Your task to perform on an android device: Do I have any events today? Image 0: 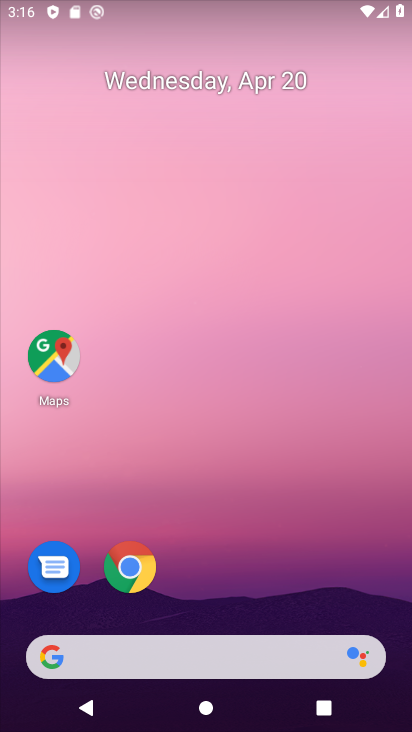
Step 0: click (222, 197)
Your task to perform on an android device: Do I have any events today? Image 1: 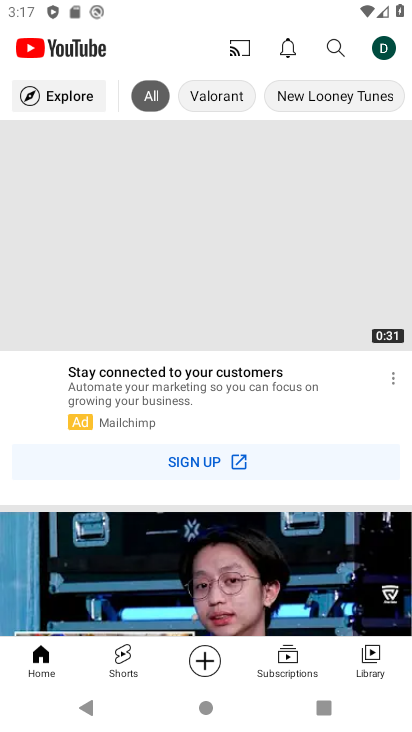
Step 1: press home button
Your task to perform on an android device: Do I have any events today? Image 2: 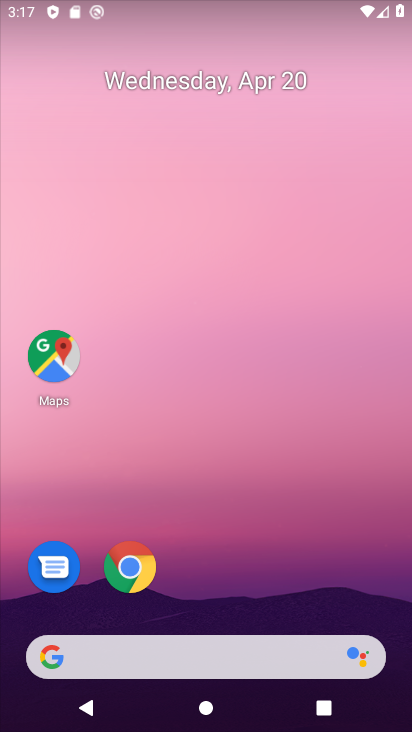
Step 2: drag from (356, 600) to (306, 182)
Your task to perform on an android device: Do I have any events today? Image 3: 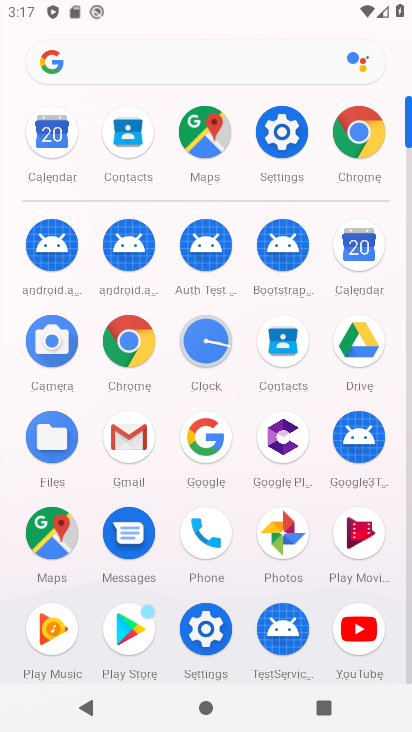
Step 3: click (371, 258)
Your task to perform on an android device: Do I have any events today? Image 4: 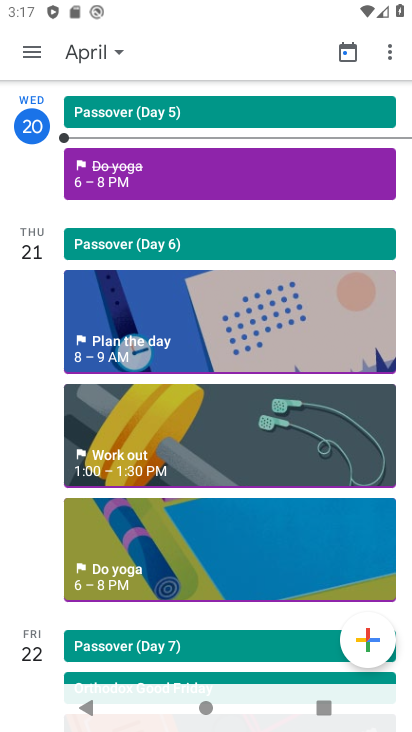
Step 4: click (104, 55)
Your task to perform on an android device: Do I have any events today? Image 5: 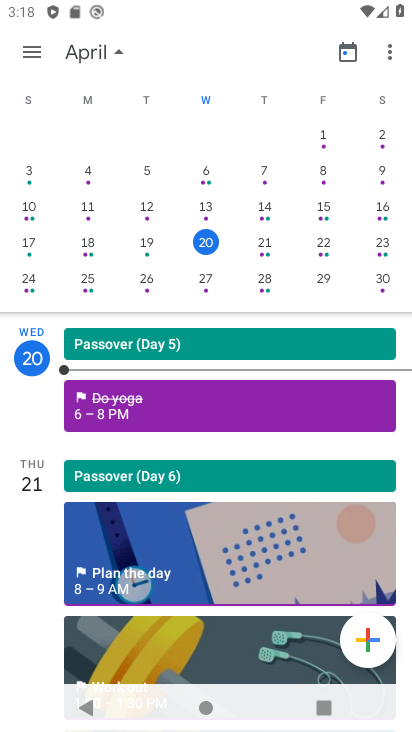
Step 5: click (208, 249)
Your task to perform on an android device: Do I have any events today? Image 6: 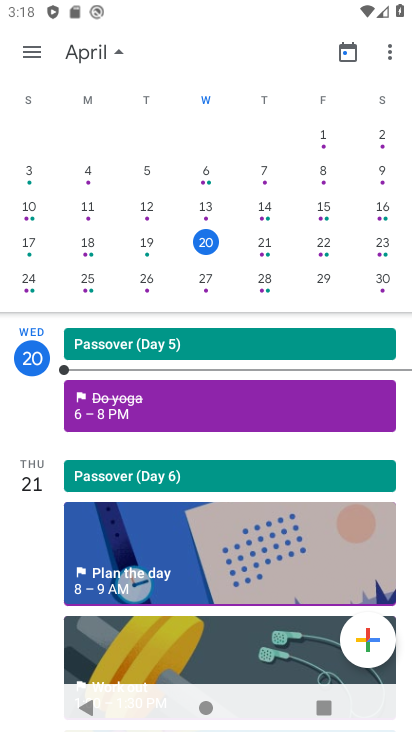
Step 6: click (118, 59)
Your task to perform on an android device: Do I have any events today? Image 7: 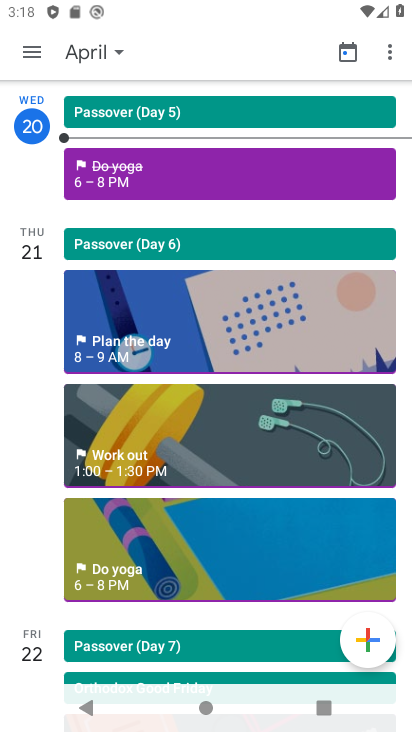
Step 7: task complete